Your task to perform on an android device: change keyboard looks Image 0: 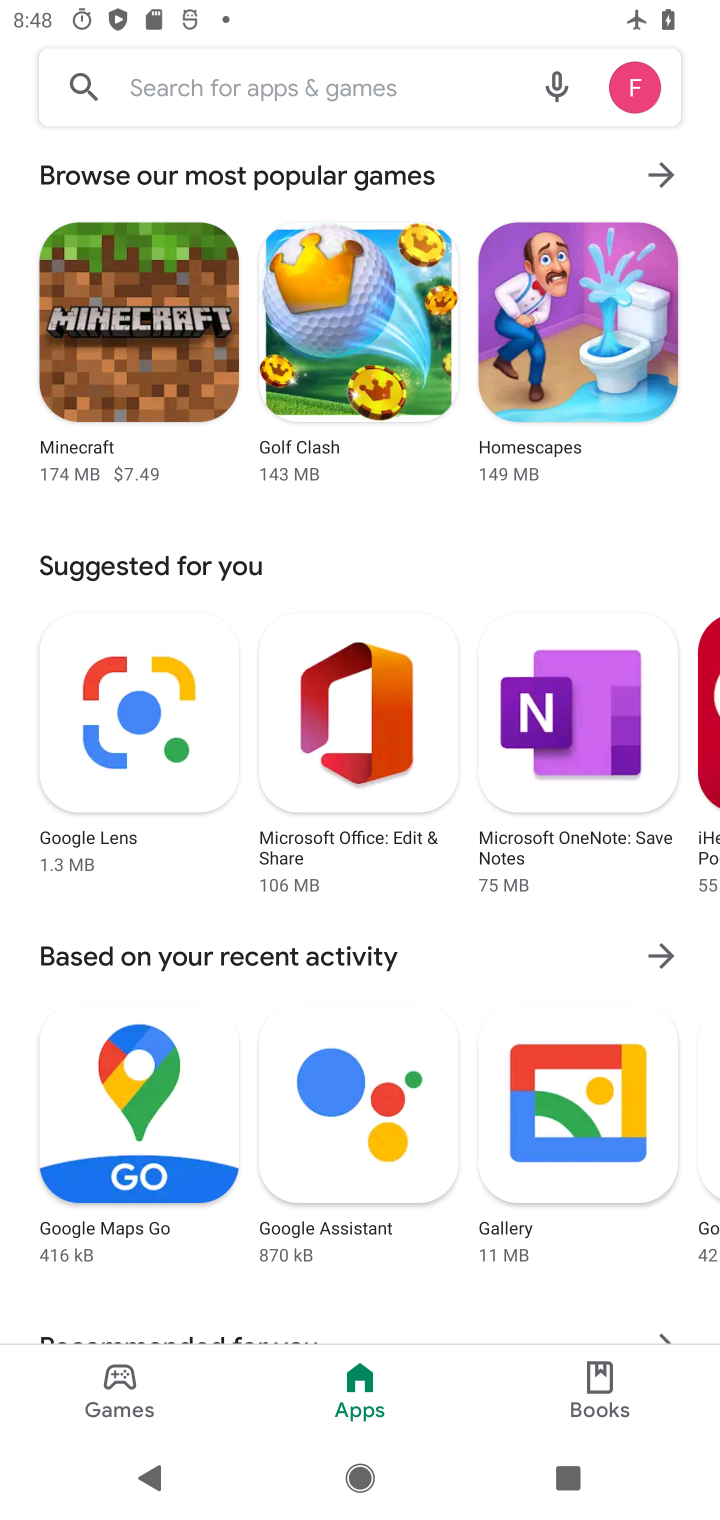
Step 0: press home button
Your task to perform on an android device: change keyboard looks Image 1: 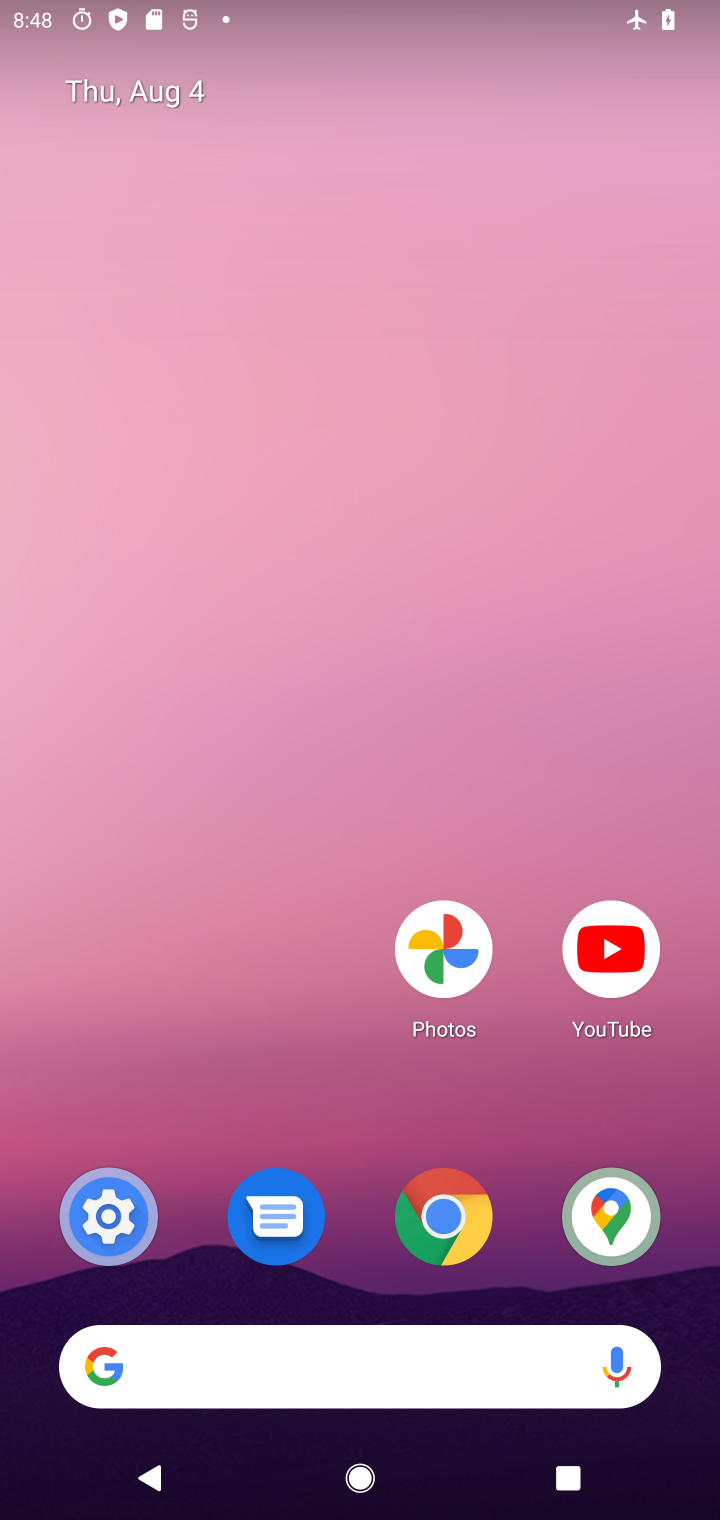
Step 1: drag from (364, 1121) to (341, 82)
Your task to perform on an android device: change keyboard looks Image 2: 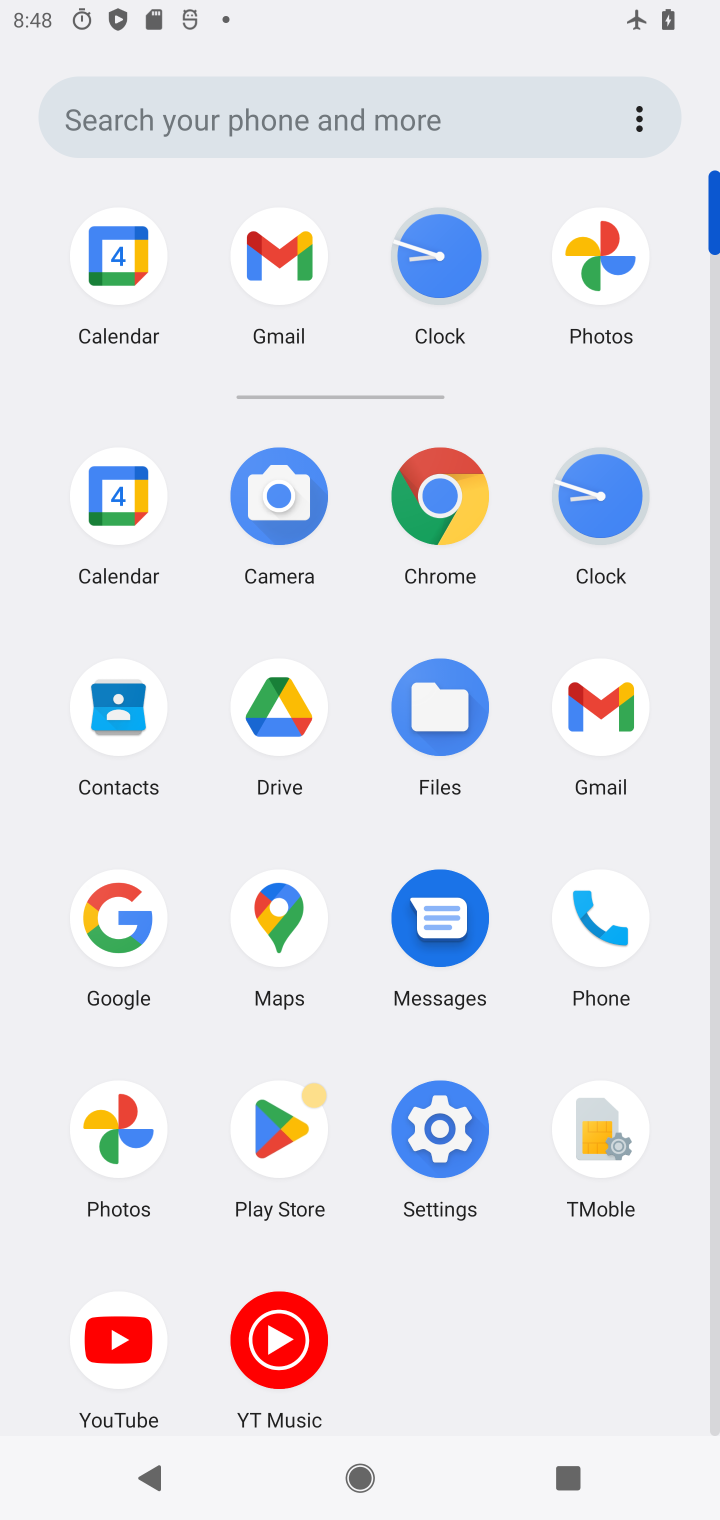
Step 2: click (427, 1130)
Your task to perform on an android device: change keyboard looks Image 3: 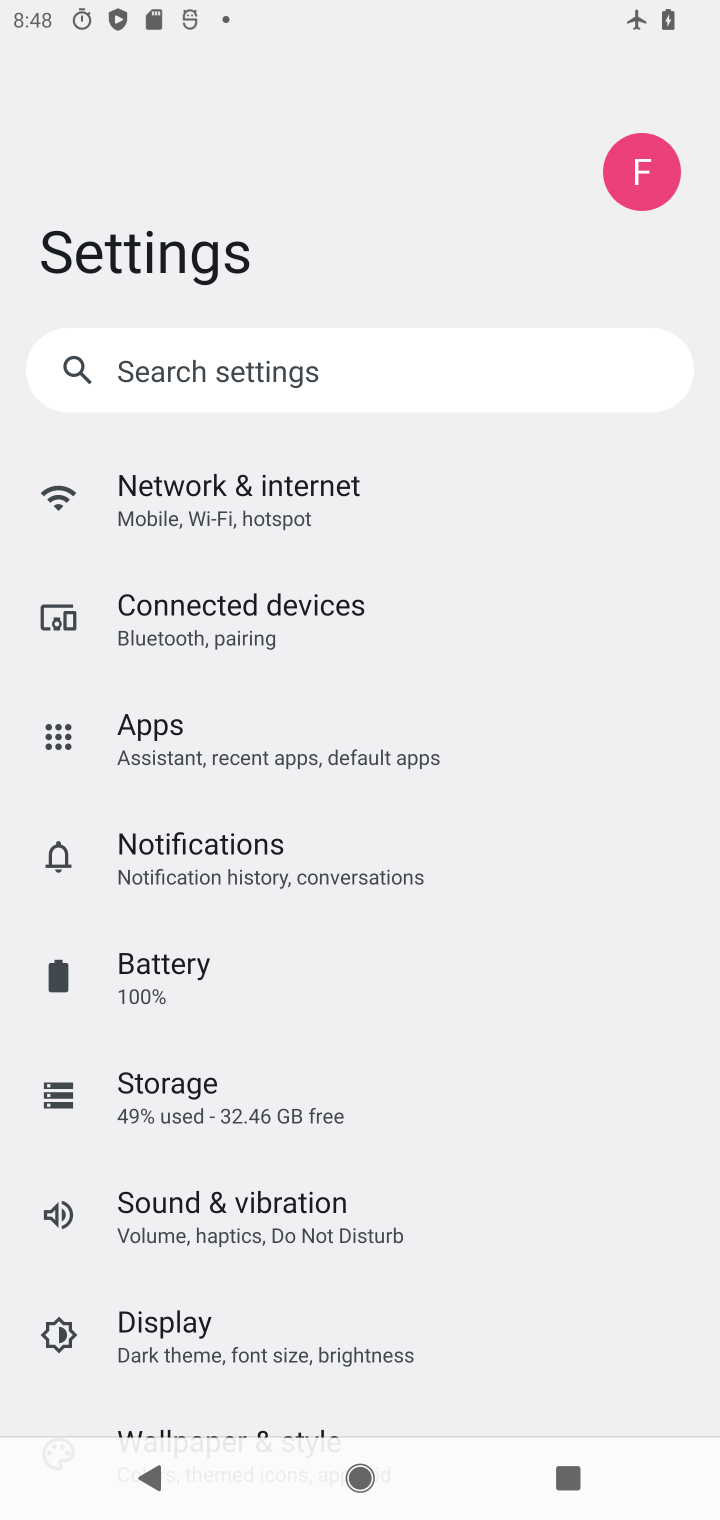
Step 3: drag from (354, 1376) to (337, 676)
Your task to perform on an android device: change keyboard looks Image 4: 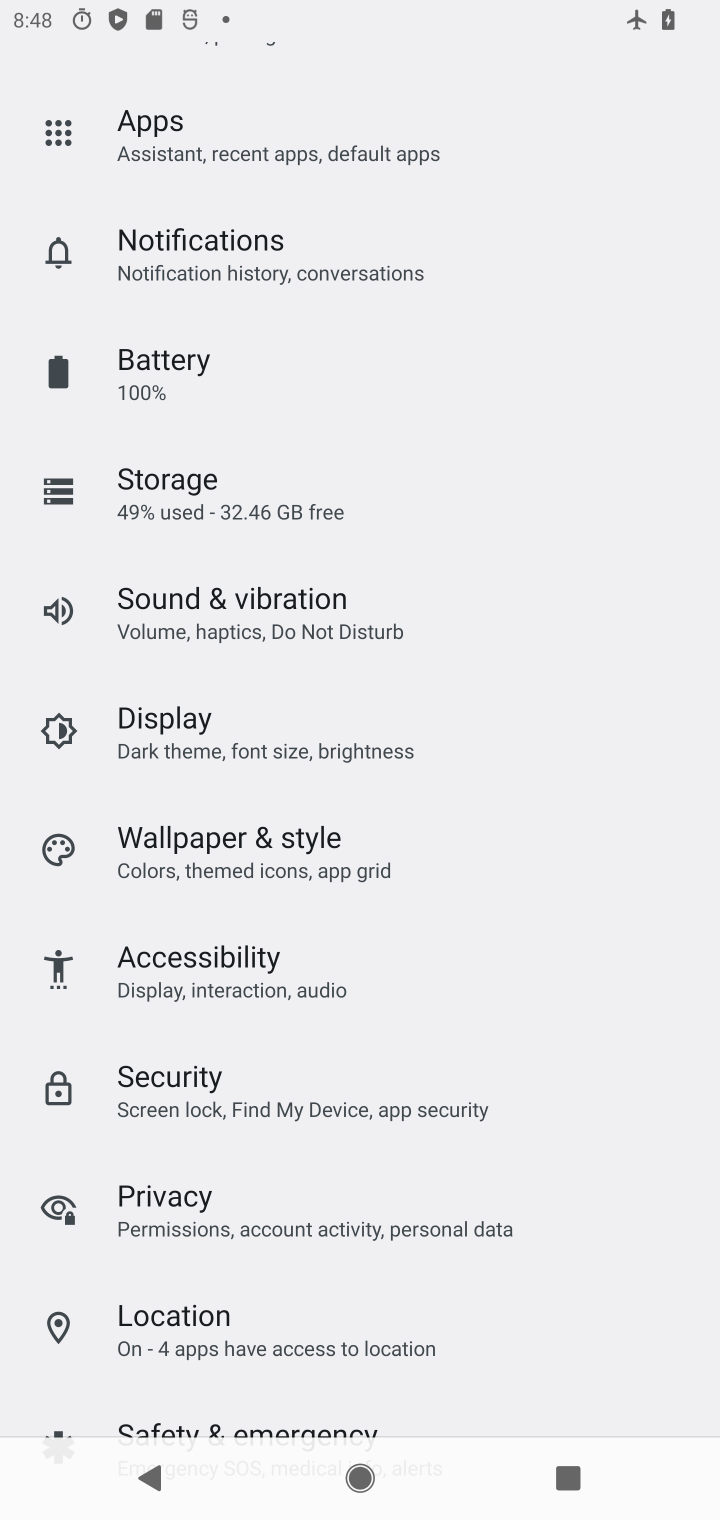
Step 4: drag from (313, 1335) to (305, 393)
Your task to perform on an android device: change keyboard looks Image 5: 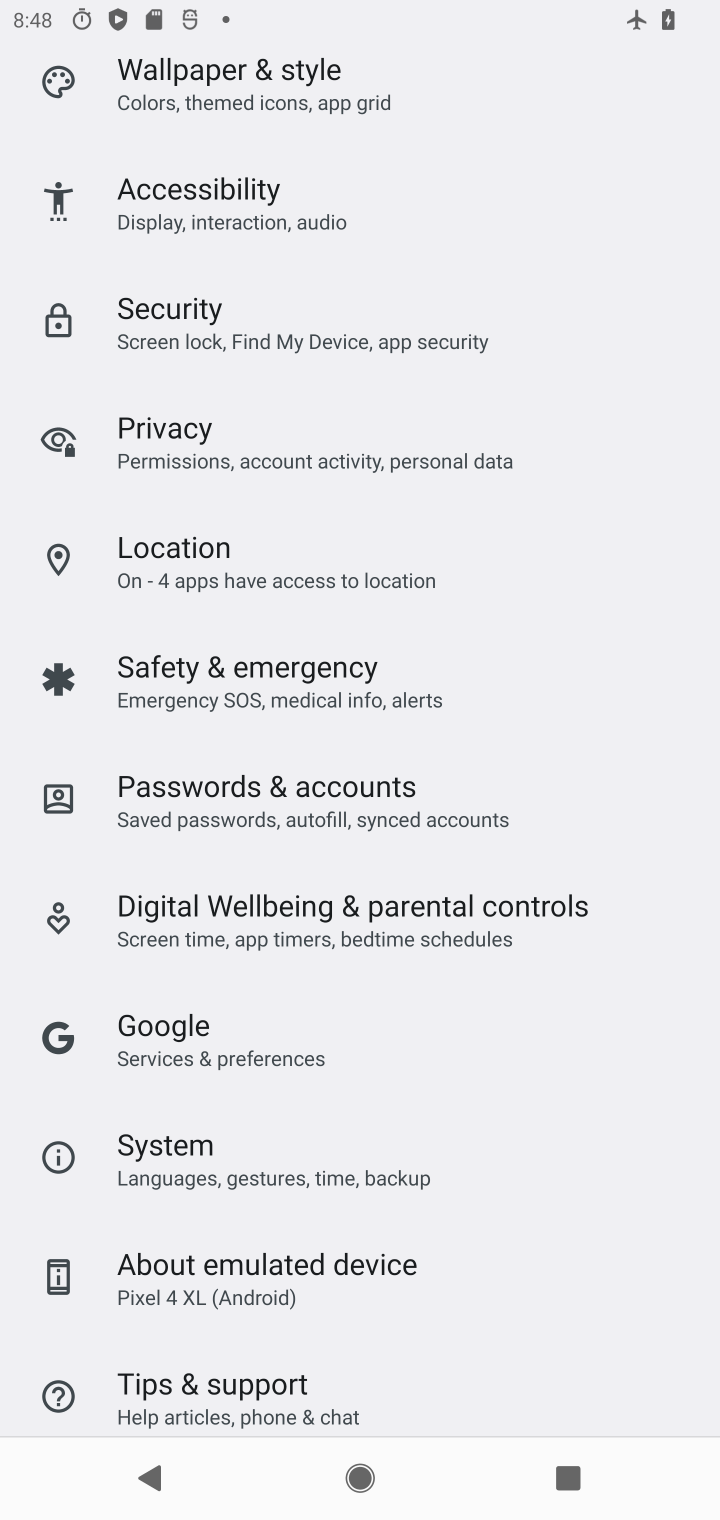
Step 5: drag from (277, 1265) to (245, 318)
Your task to perform on an android device: change keyboard looks Image 6: 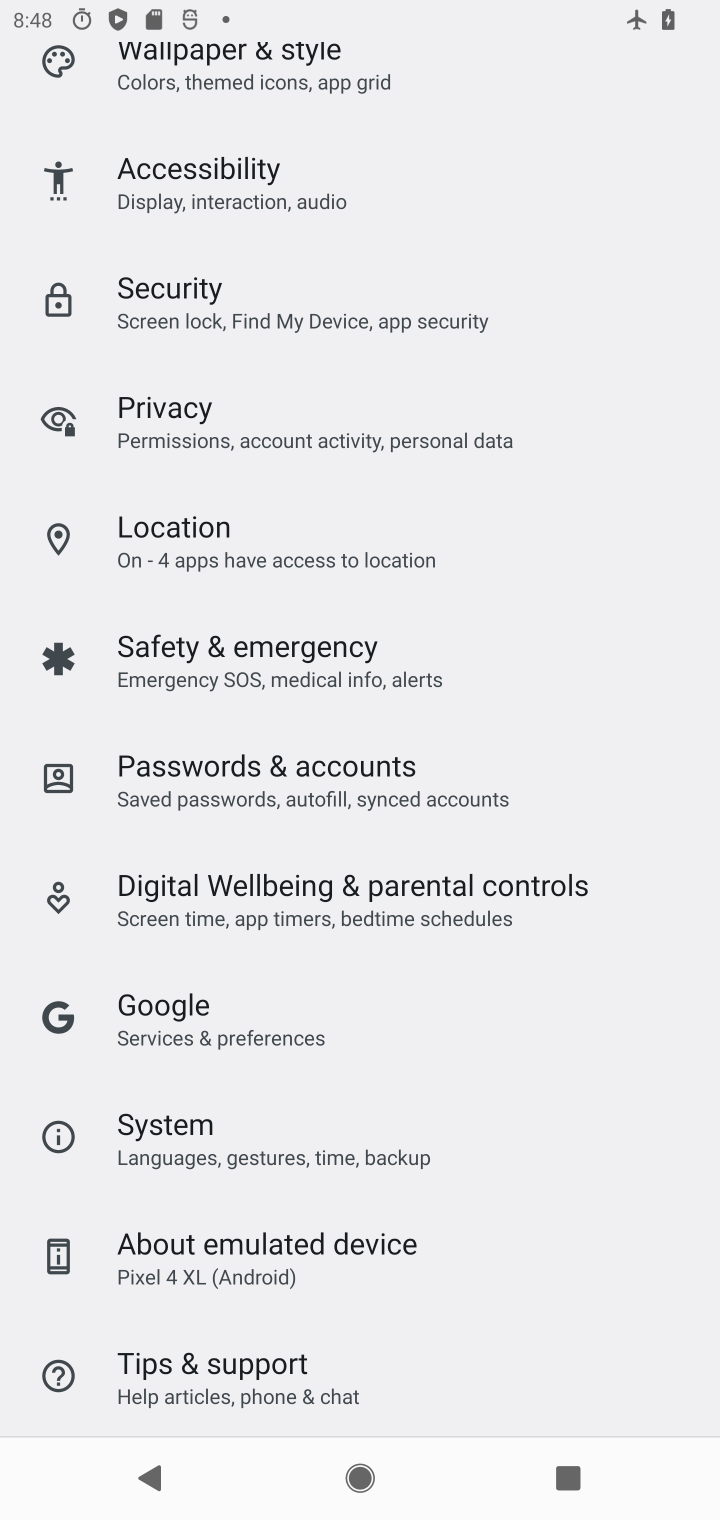
Step 6: click (173, 1119)
Your task to perform on an android device: change keyboard looks Image 7: 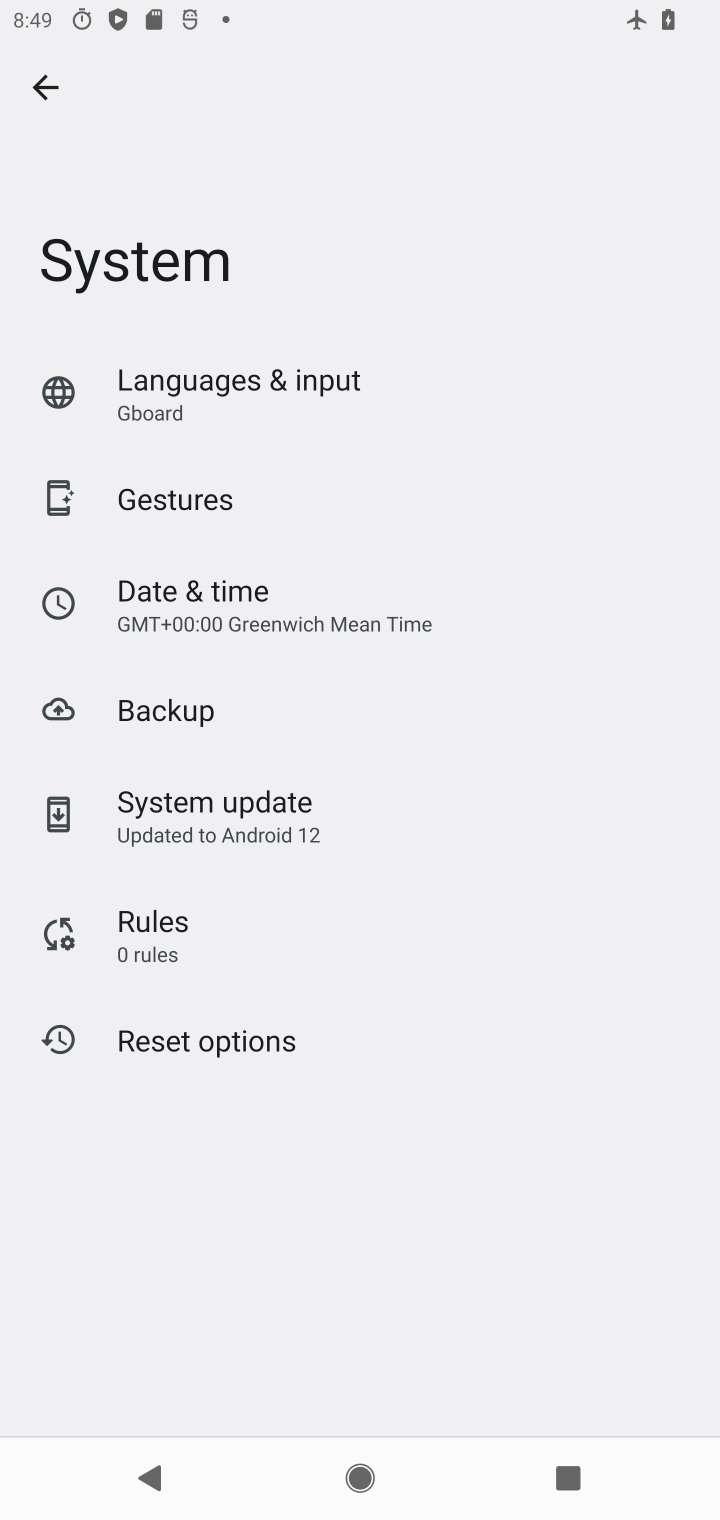
Step 7: click (148, 388)
Your task to perform on an android device: change keyboard looks Image 8: 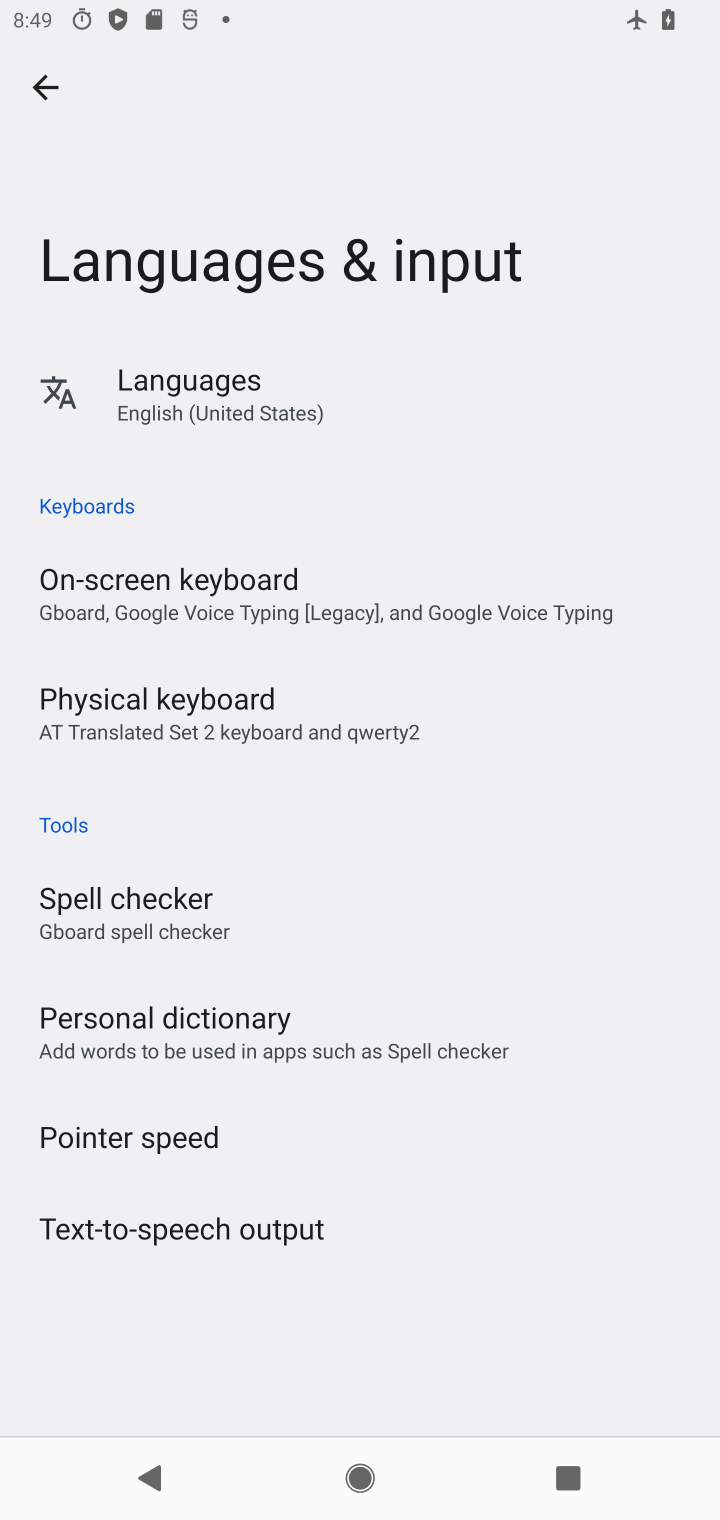
Step 8: click (234, 575)
Your task to perform on an android device: change keyboard looks Image 9: 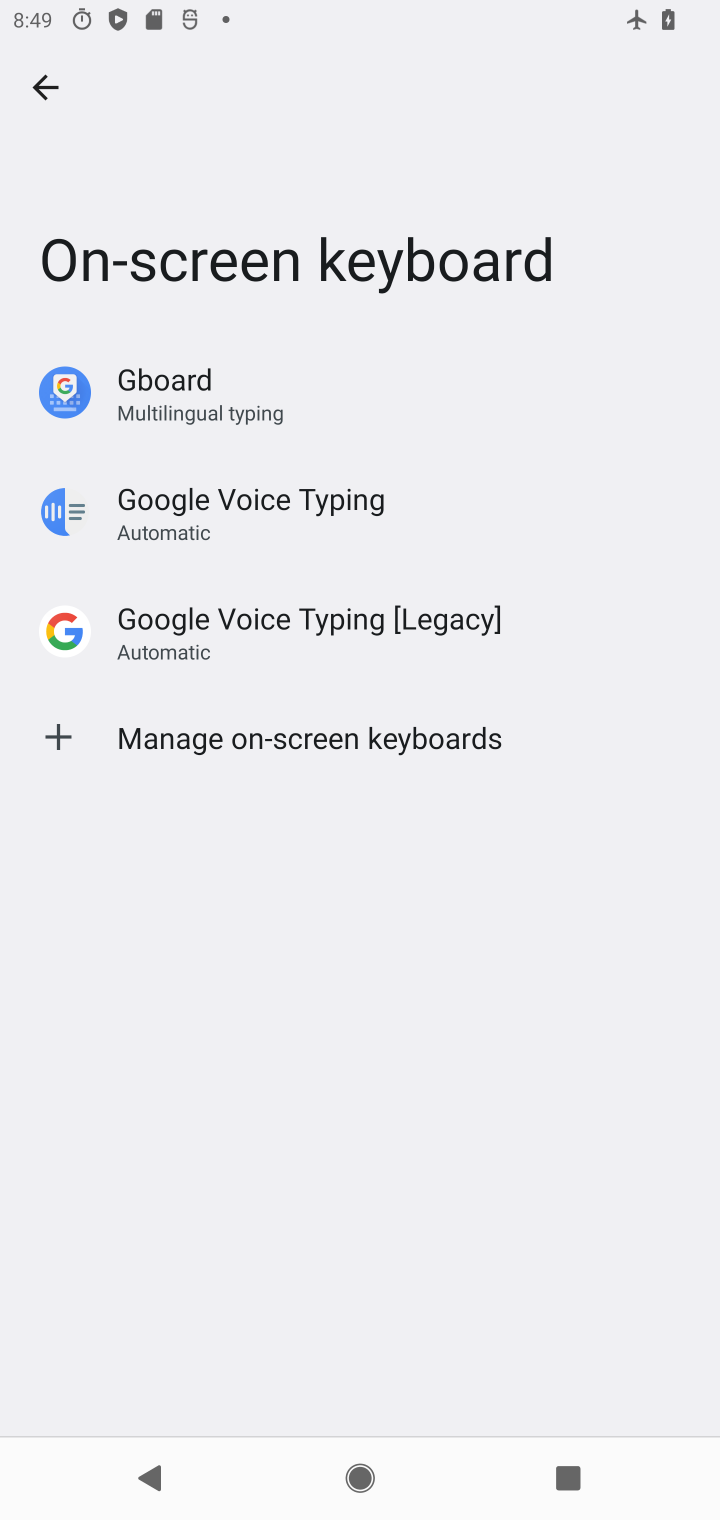
Step 9: click (181, 418)
Your task to perform on an android device: change keyboard looks Image 10: 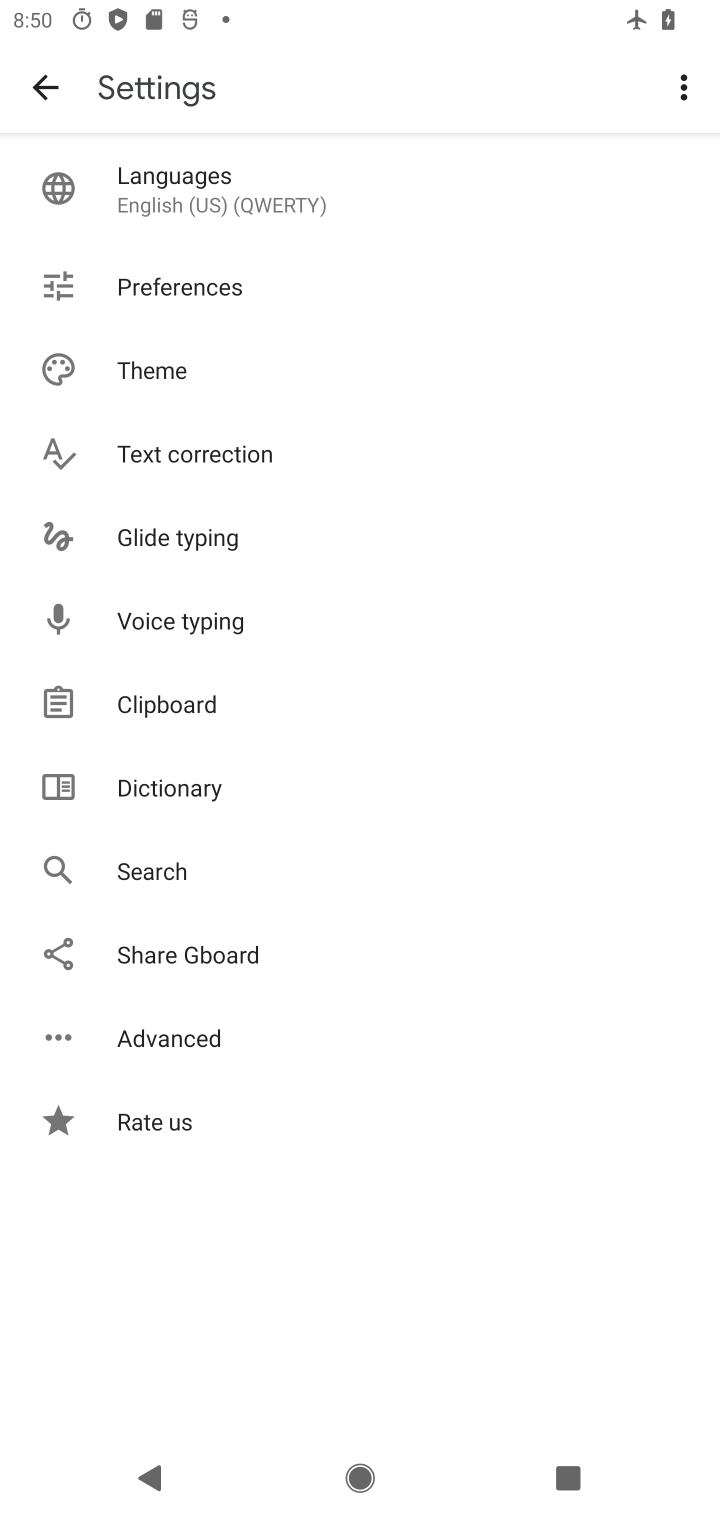
Step 10: click (138, 371)
Your task to perform on an android device: change keyboard looks Image 11: 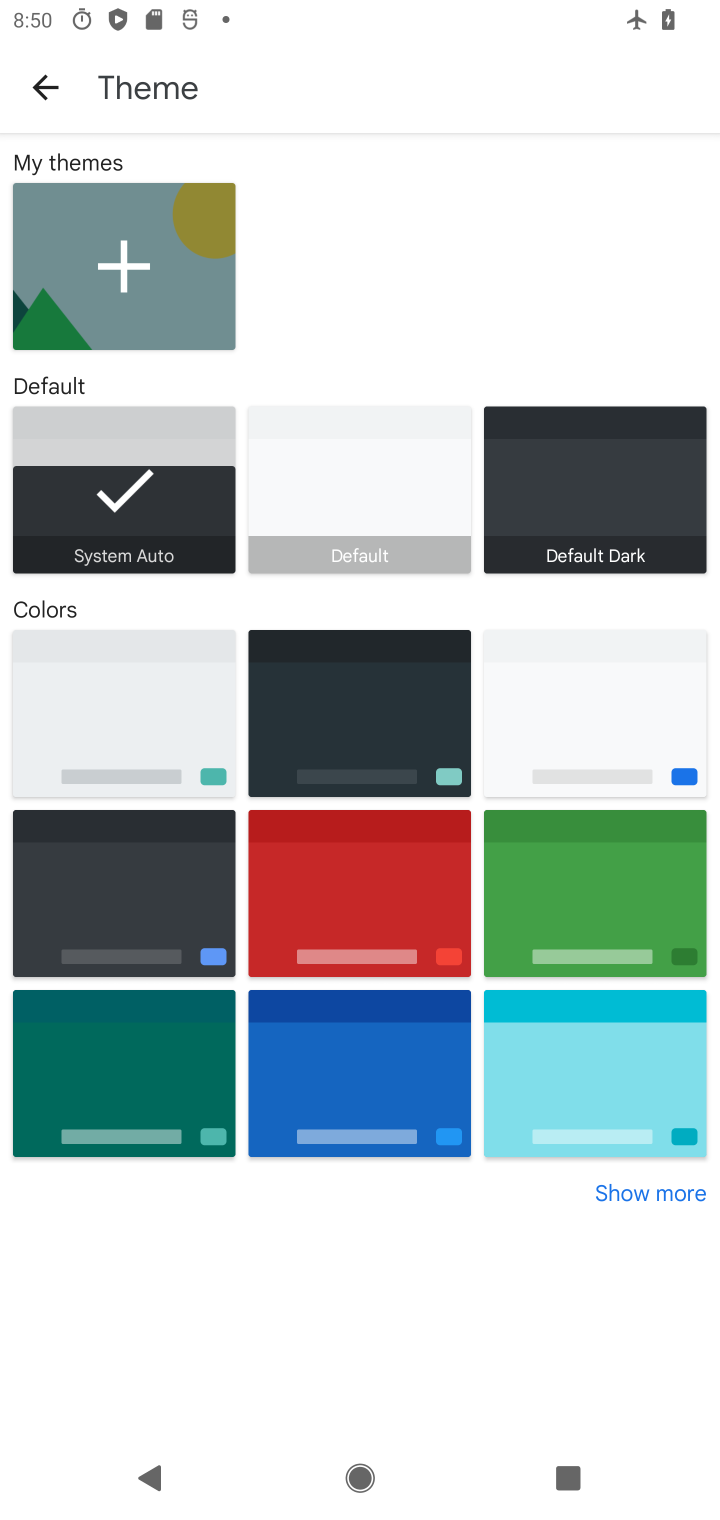
Step 11: click (394, 729)
Your task to perform on an android device: change keyboard looks Image 12: 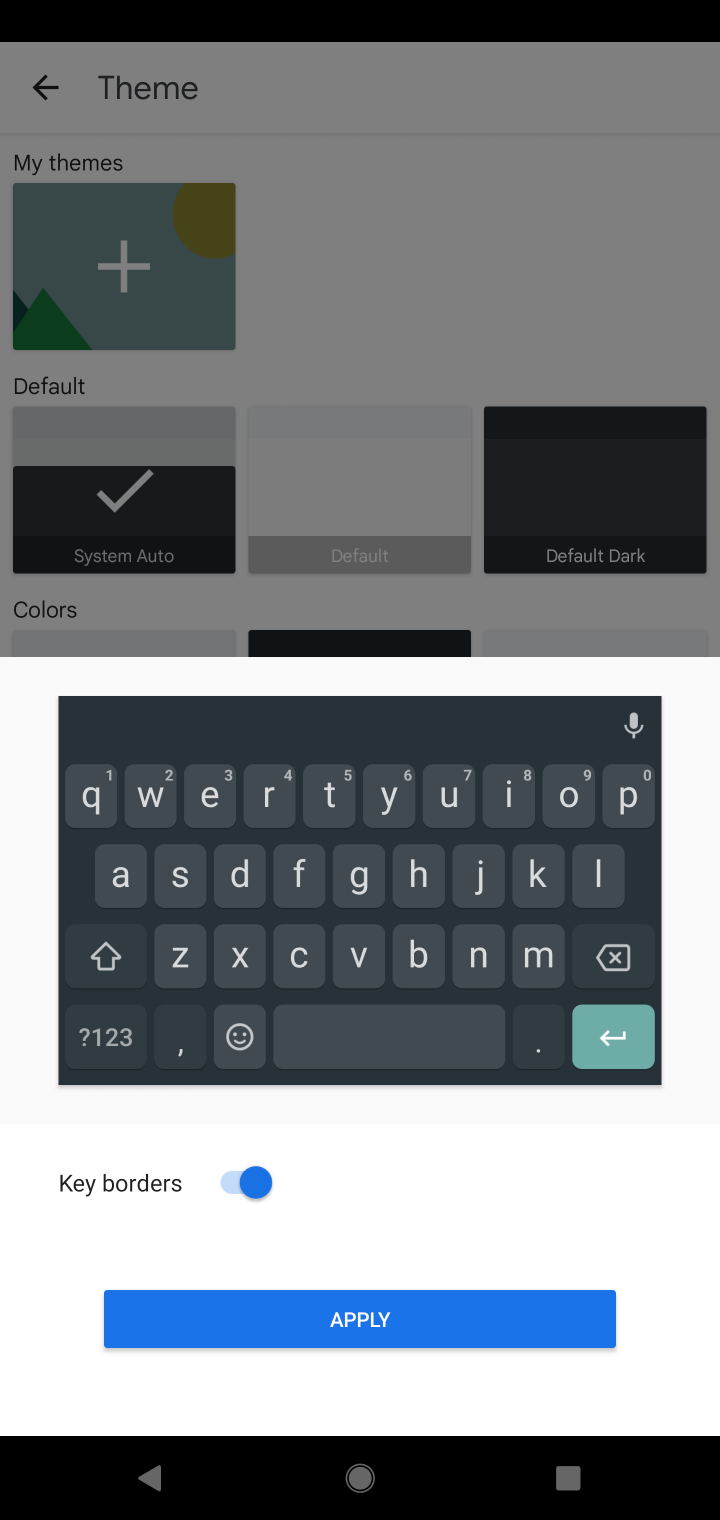
Step 12: click (316, 1328)
Your task to perform on an android device: change keyboard looks Image 13: 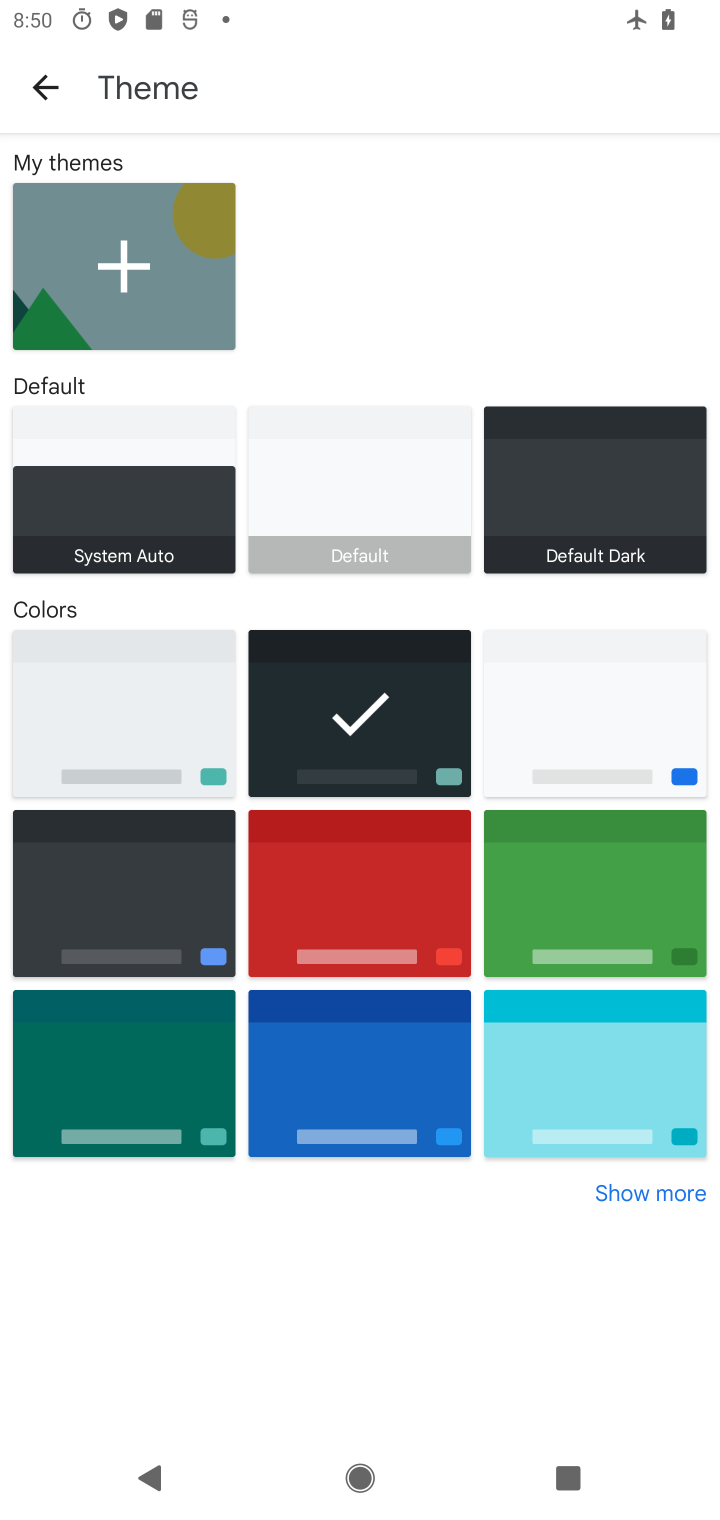
Step 13: task complete